Your task to perform on an android device: see tabs open on other devices in the chrome app Image 0: 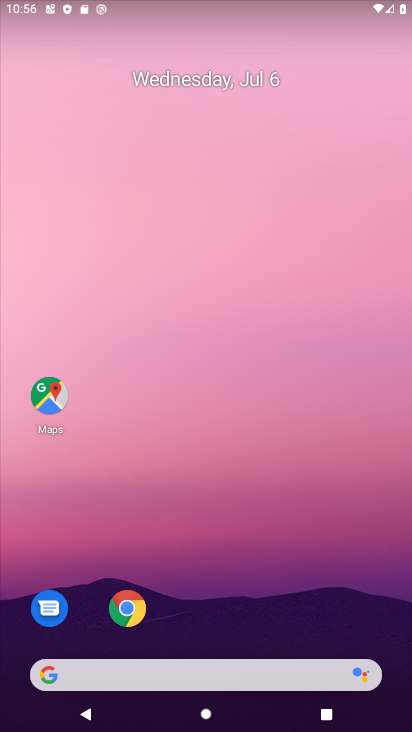
Step 0: drag from (216, 668) to (219, 259)
Your task to perform on an android device: see tabs open on other devices in the chrome app Image 1: 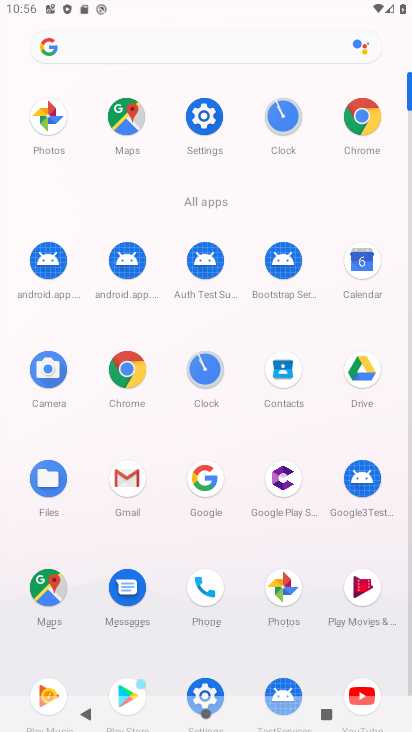
Step 1: click (373, 116)
Your task to perform on an android device: see tabs open on other devices in the chrome app Image 2: 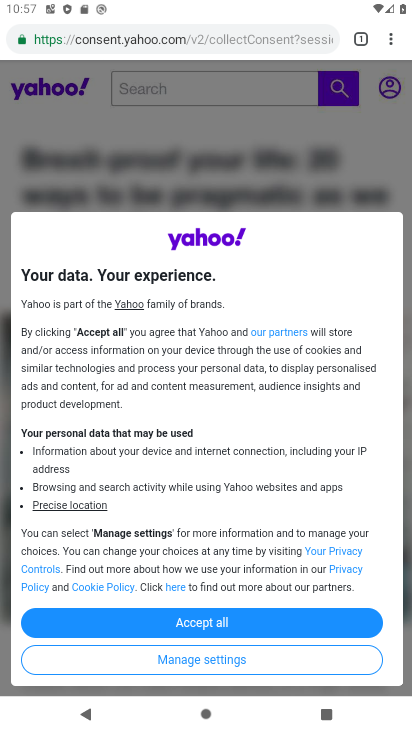
Step 2: click (353, 37)
Your task to perform on an android device: see tabs open on other devices in the chrome app Image 3: 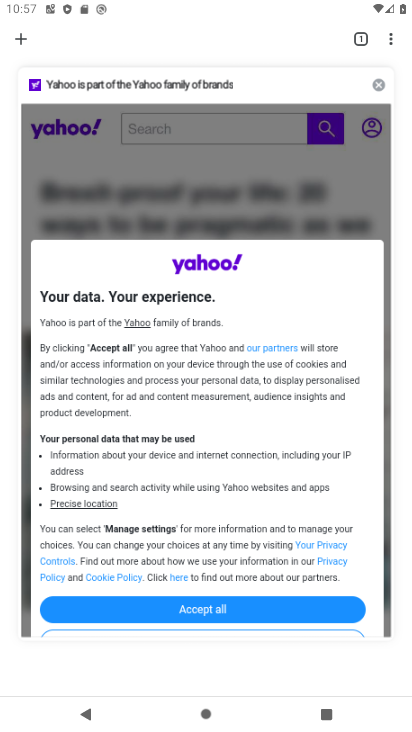
Step 3: task complete